Your task to perform on an android device: snooze an email in the gmail app Image 0: 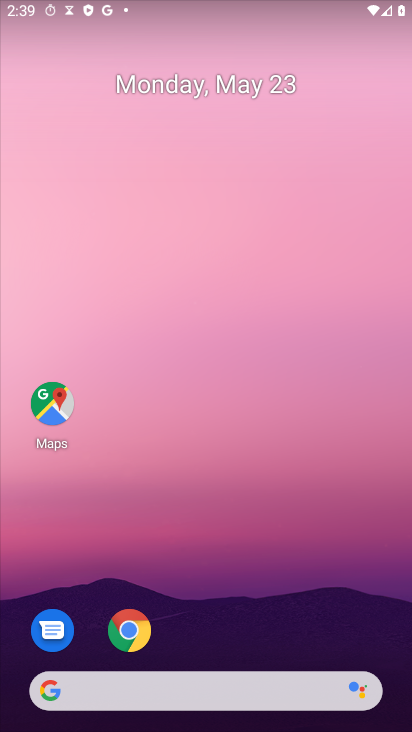
Step 0: drag from (281, 534) to (261, 8)
Your task to perform on an android device: snooze an email in the gmail app Image 1: 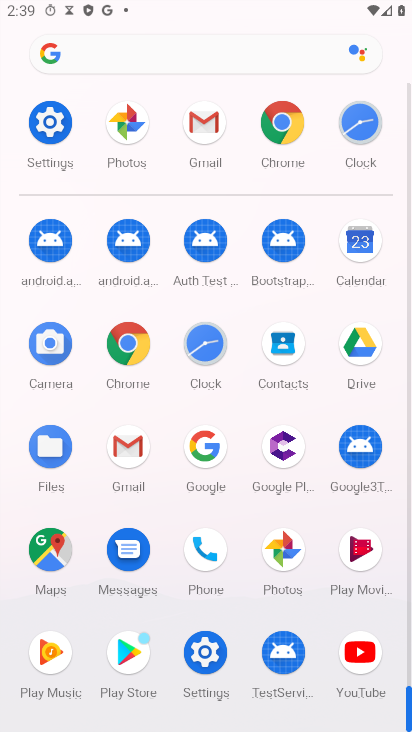
Step 1: click (226, 128)
Your task to perform on an android device: snooze an email in the gmail app Image 2: 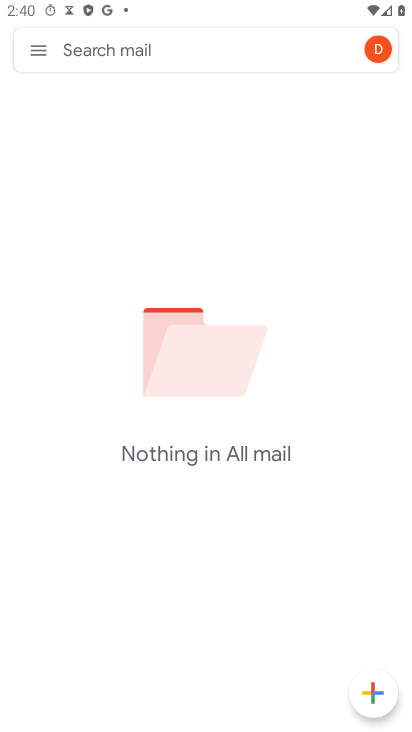
Step 2: click (45, 56)
Your task to perform on an android device: snooze an email in the gmail app Image 3: 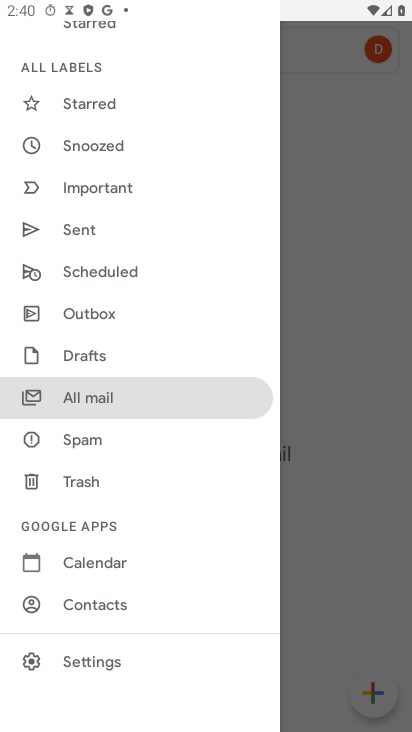
Step 3: click (64, 150)
Your task to perform on an android device: snooze an email in the gmail app Image 4: 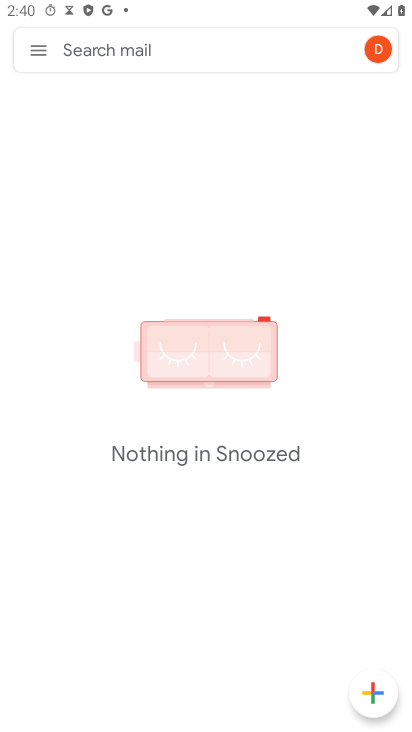
Step 4: task complete